Your task to perform on an android device: Show the shopping cart on bestbuy.com. Add "apple airpods" to the cart on bestbuy.com, then select checkout. Image 0: 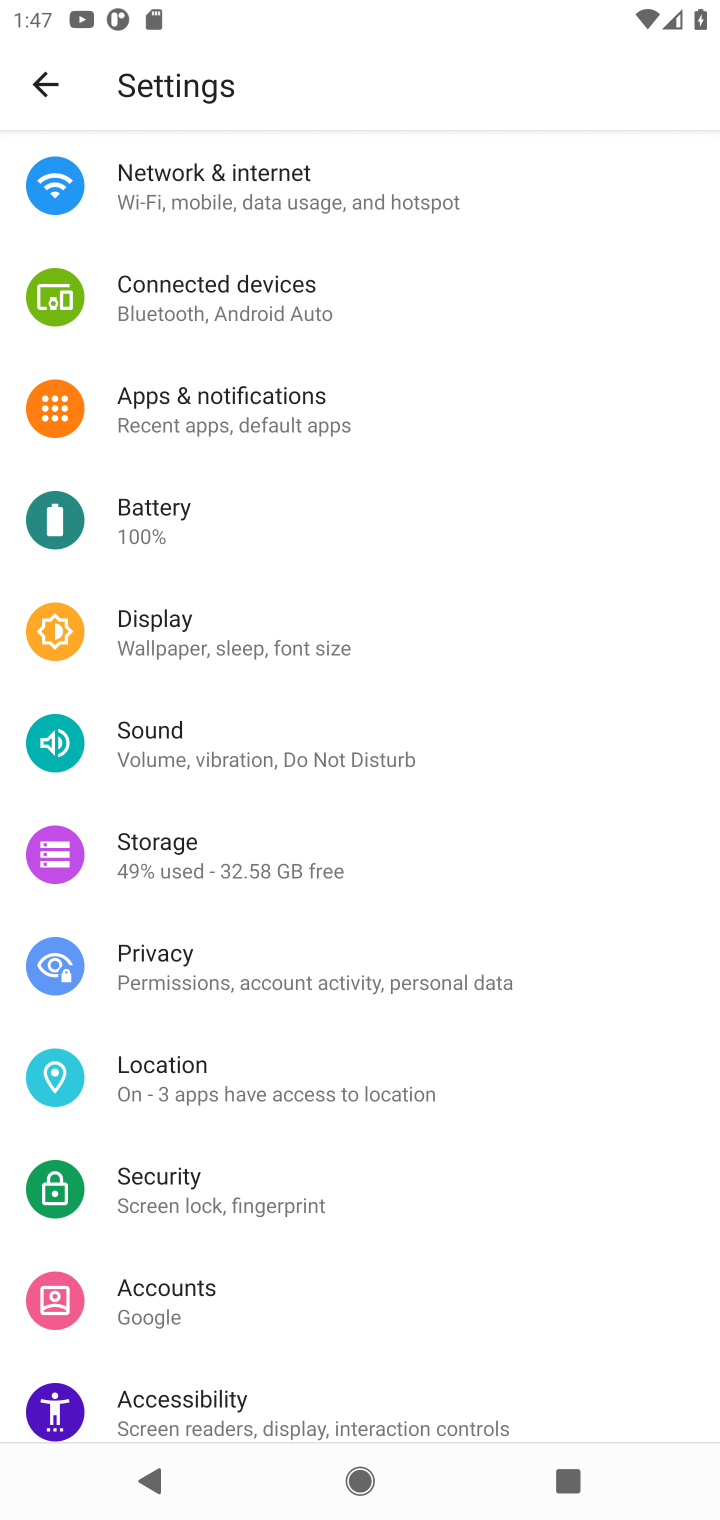
Step 0: press home button
Your task to perform on an android device: Show the shopping cart on bestbuy.com. Add "apple airpods" to the cart on bestbuy.com, then select checkout. Image 1: 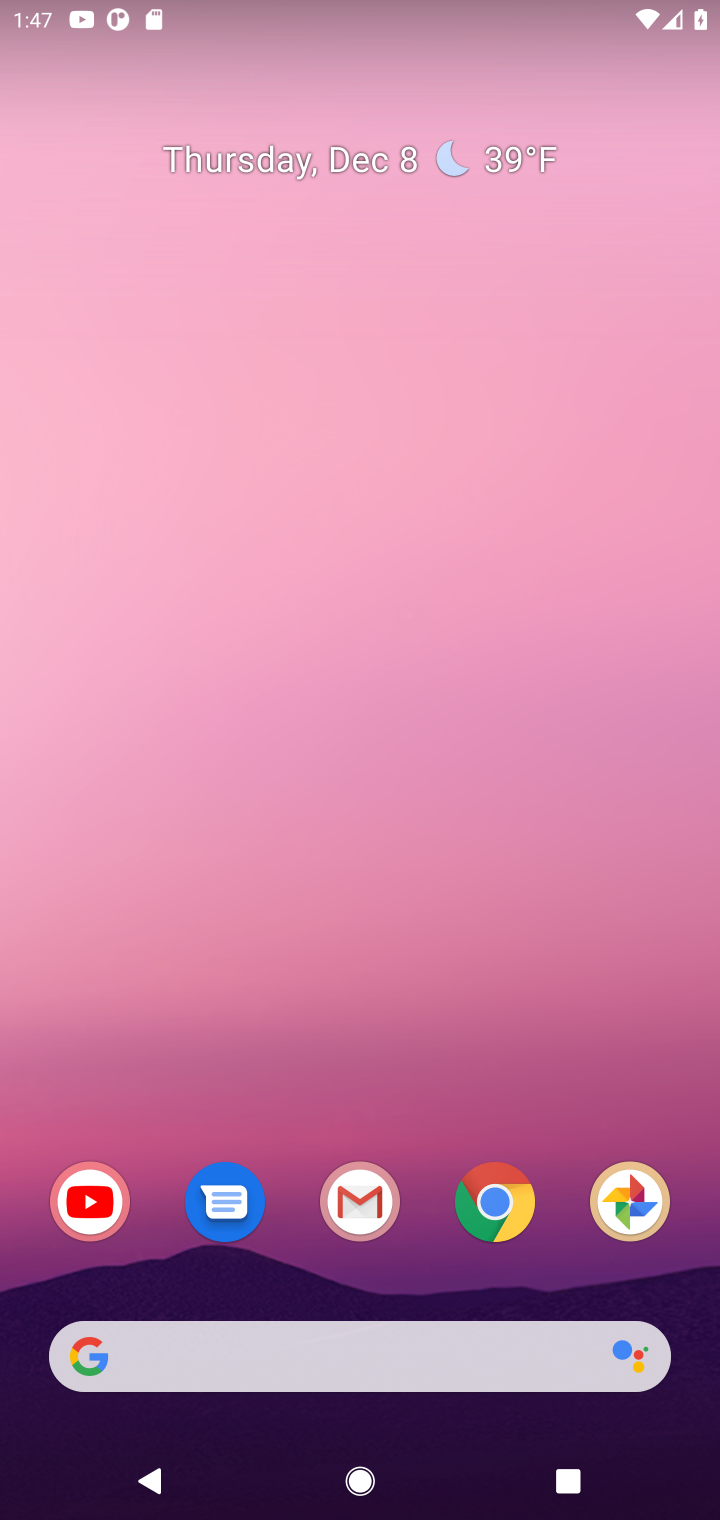
Step 1: click (491, 1207)
Your task to perform on an android device: Show the shopping cart on bestbuy.com. Add "apple airpods" to the cart on bestbuy.com, then select checkout. Image 2: 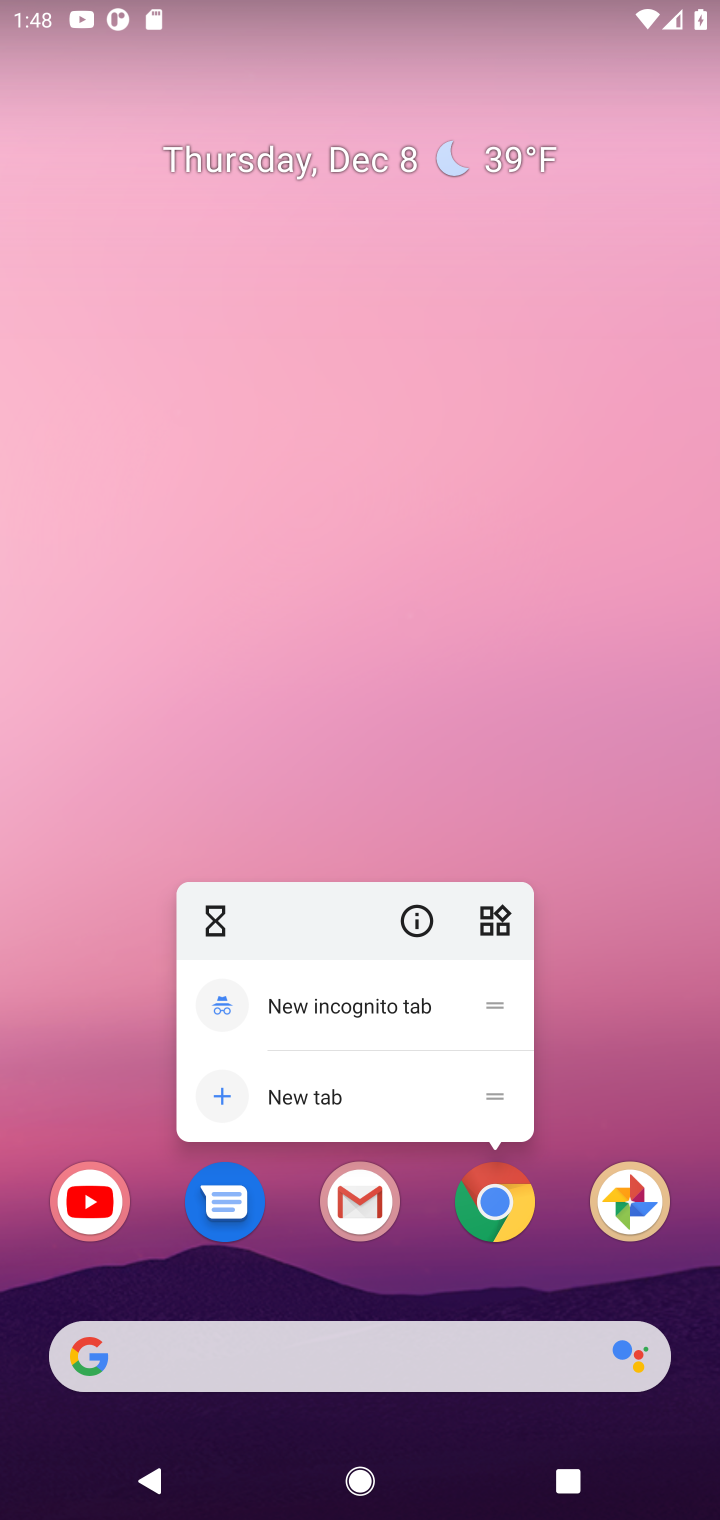
Step 2: click (492, 1209)
Your task to perform on an android device: Show the shopping cart on bestbuy.com. Add "apple airpods" to the cart on bestbuy.com, then select checkout. Image 3: 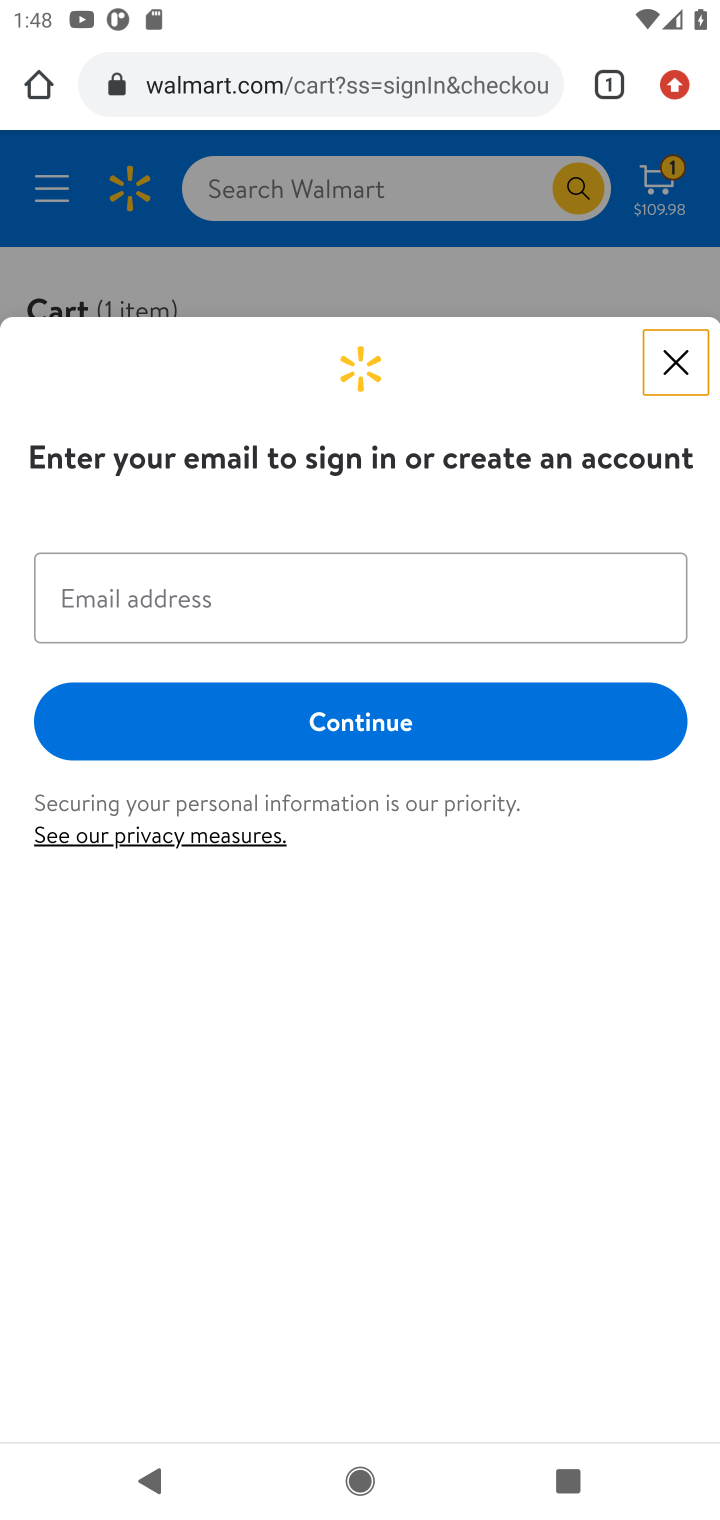
Step 3: click (690, 367)
Your task to perform on an android device: Show the shopping cart on bestbuy.com. Add "apple airpods" to the cart on bestbuy.com, then select checkout. Image 4: 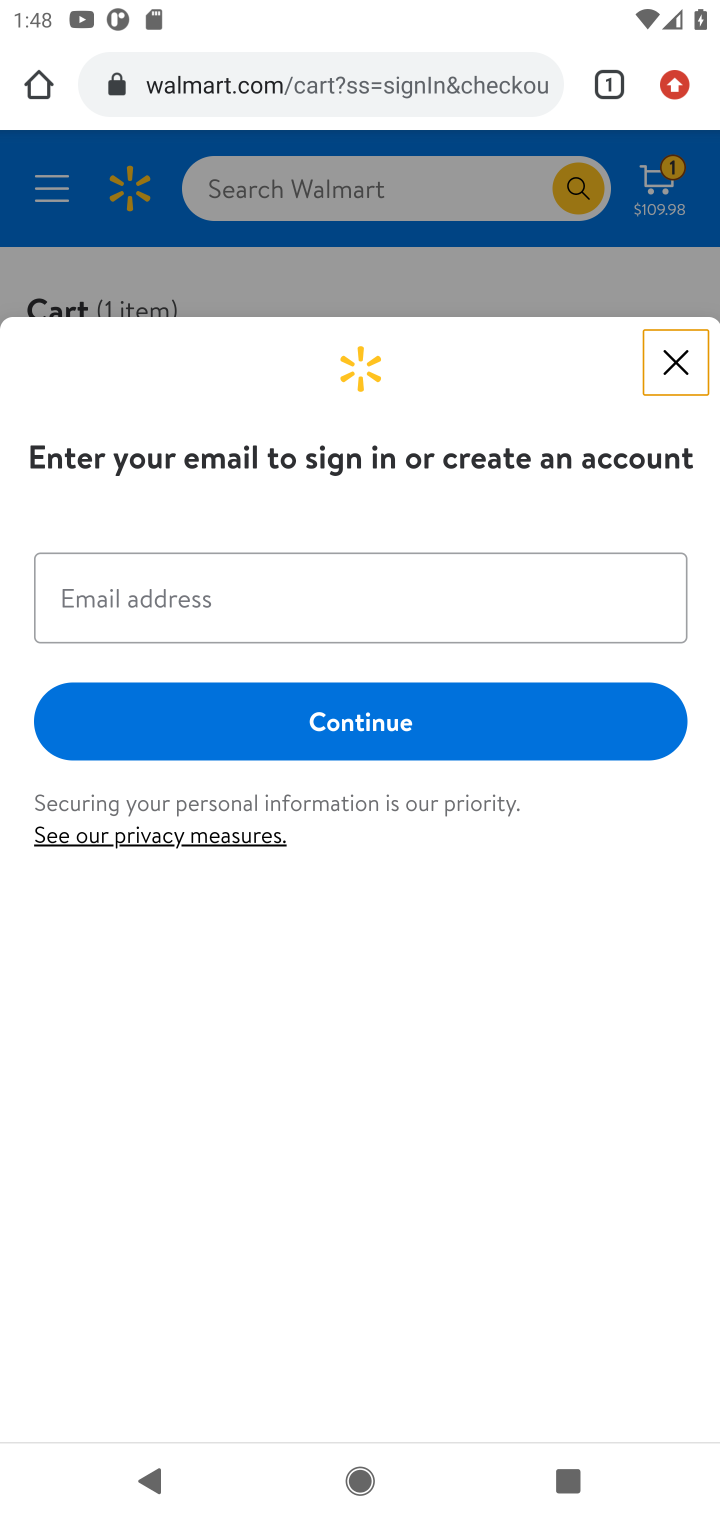
Step 4: click (389, 75)
Your task to perform on an android device: Show the shopping cart on bestbuy.com. Add "apple airpods" to the cart on bestbuy.com, then select checkout. Image 5: 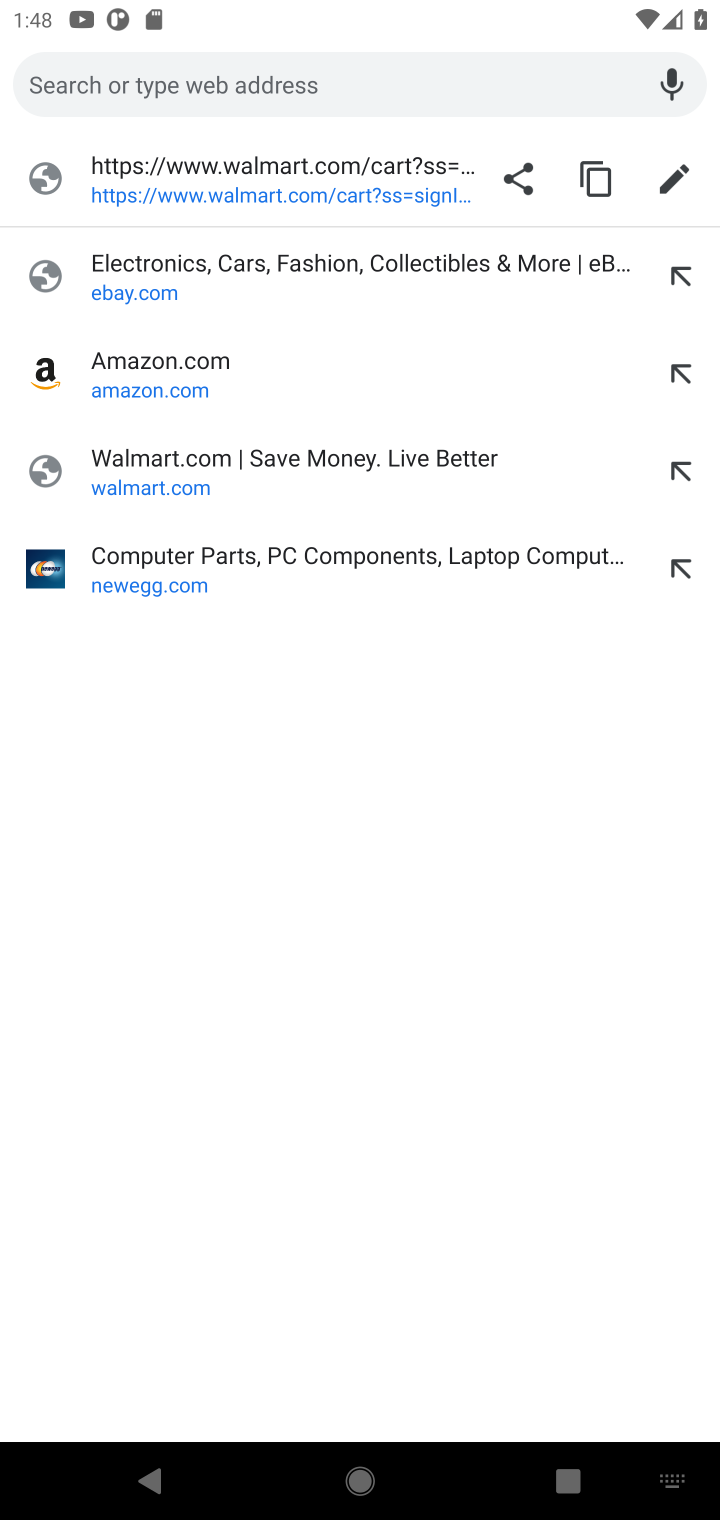
Step 5: type "bestbuy.com"
Your task to perform on an android device: Show the shopping cart on bestbuy.com. Add "apple airpods" to the cart on bestbuy.com, then select checkout. Image 6: 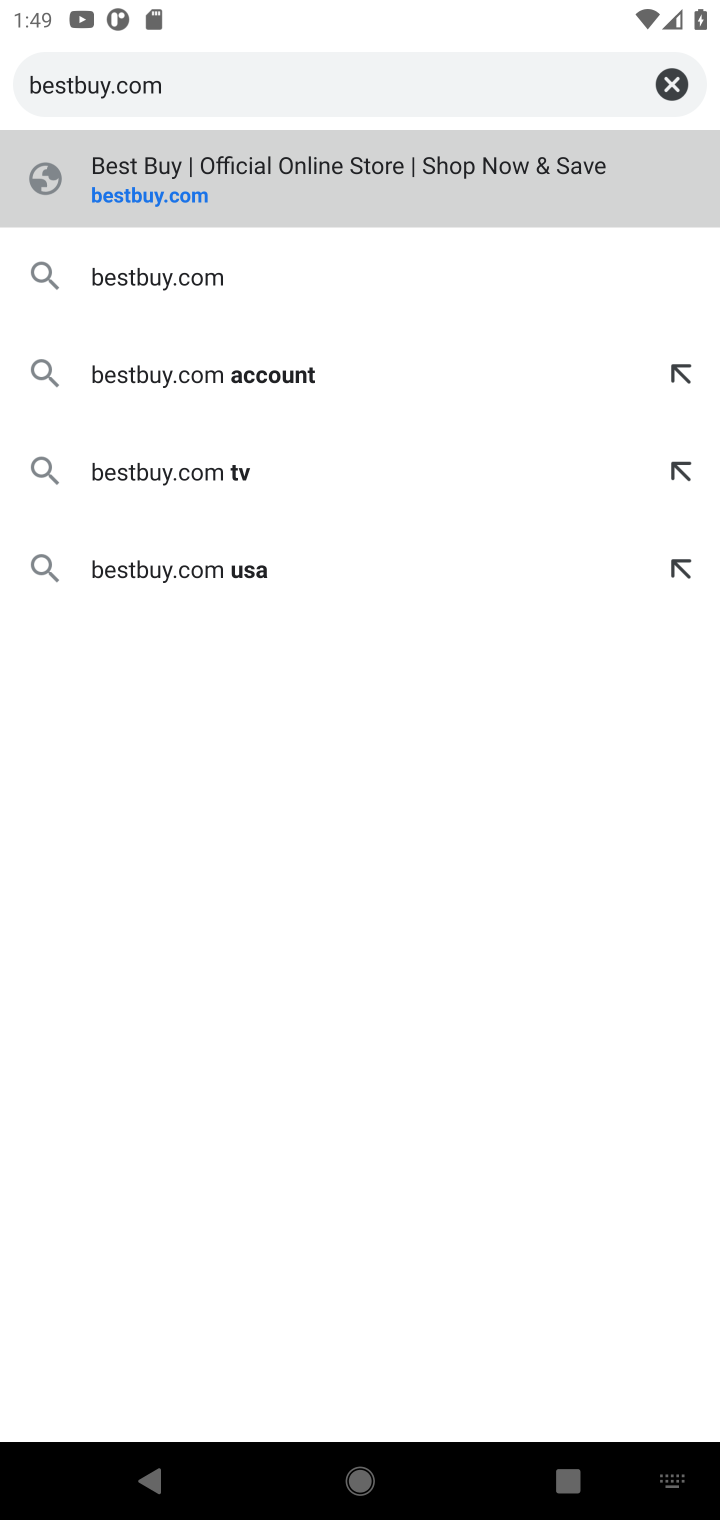
Step 6: press enter
Your task to perform on an android device: Show the shopping cart on bestbuy.com. Add "apple airpods" to the cart on bestbuy.com, then select checkout. Image 7: 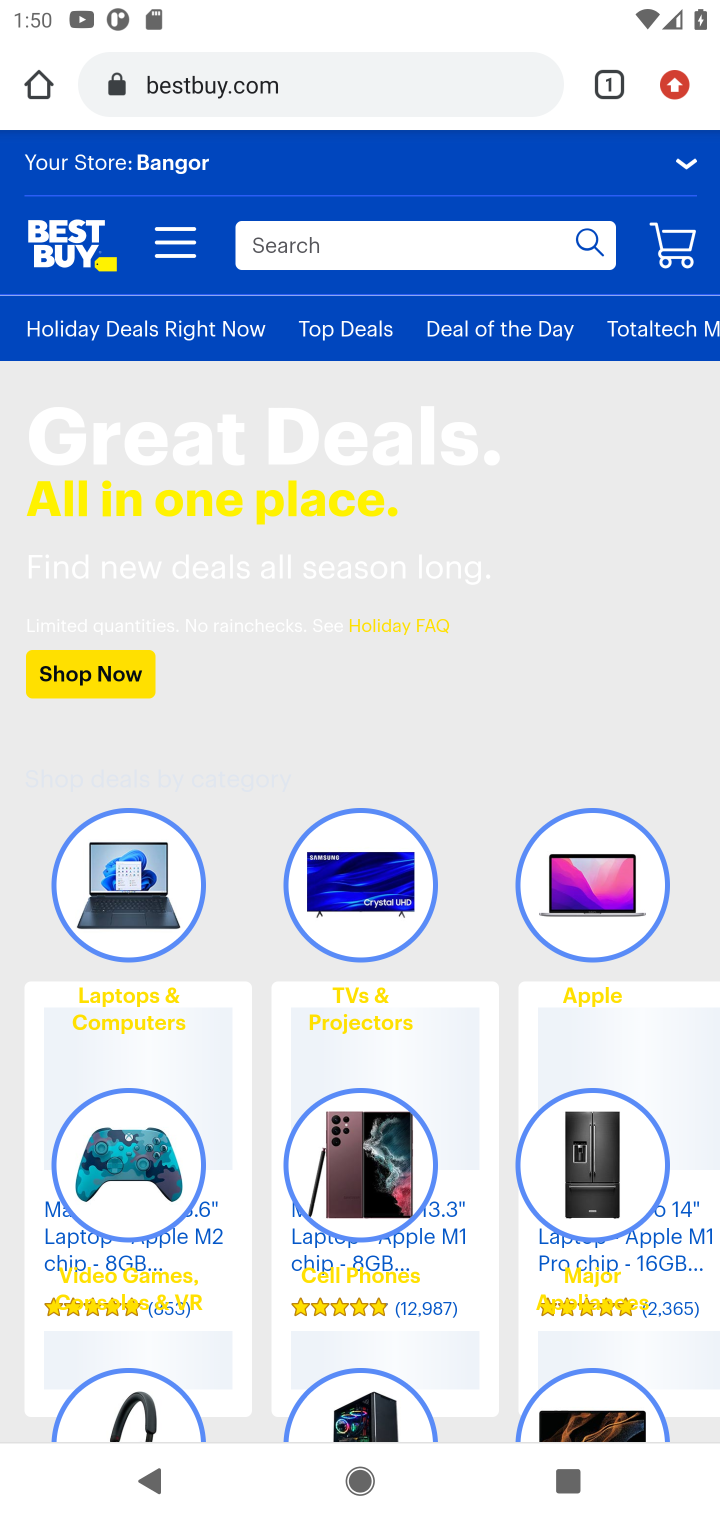
Step 7: click (680, 255)
Your task to perform on an android device: Show the shopping cart on bestbuy.com. Add "apple airpods" to the cart on bestbuy.com, then select checkout. Image 8: 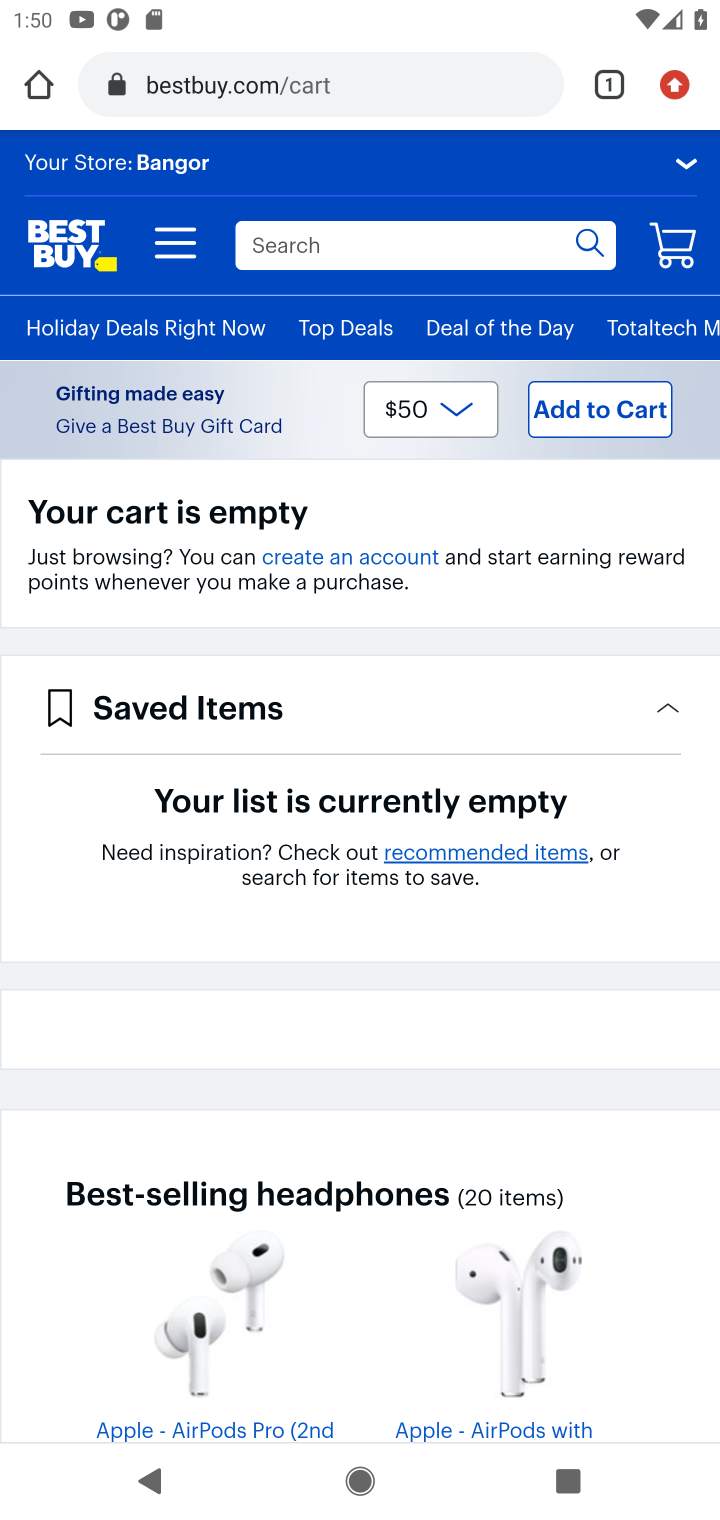
Step 8: click (446, 251)
Your task to perform on an android device: Show the shopping cart on bestbuy.com. Add "apple airpods" to the cart on bestbuy.com, then select checkout. Image 9: 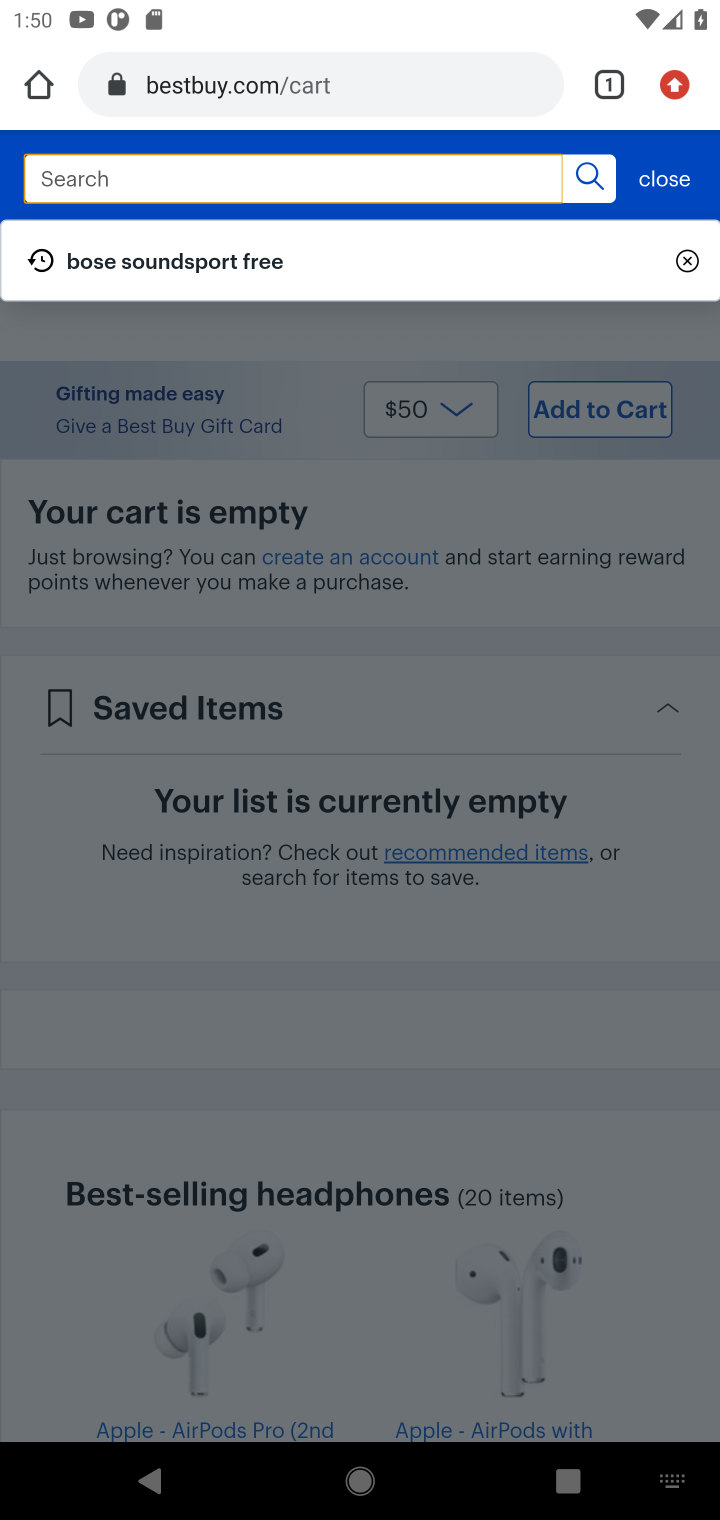
Step 9: type "apple airpods"
Your task to perform on an android device: Show the shopping cart on bestbuy.com. Add "apple airpods" to the cart on bestbuy.com, then select checkout. Image 10: 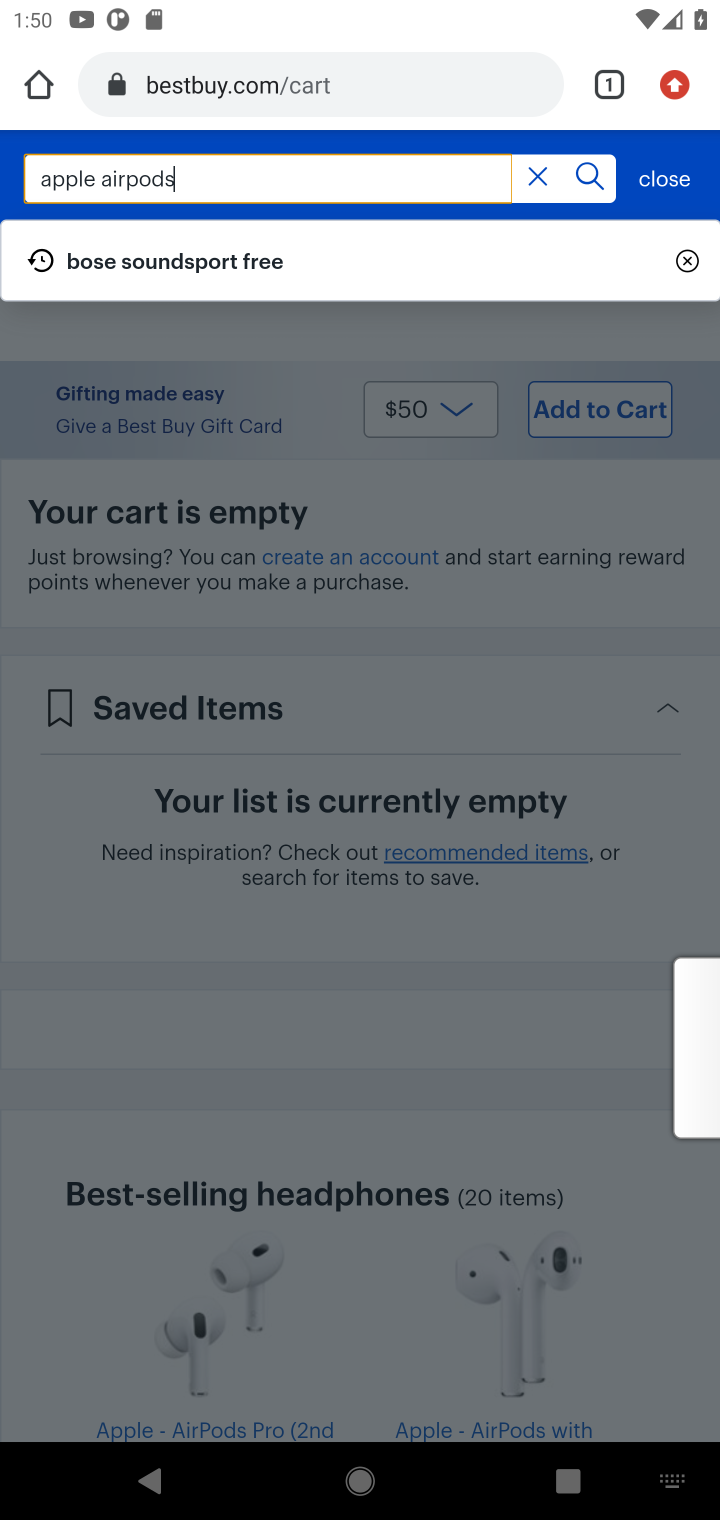
Step 10: press enter
Your task to perform on an android device: Show the shopping cart on bestbuy.com. Add "apple airpods" to the cart on bestbuy.com, then select checkout. Image 11: 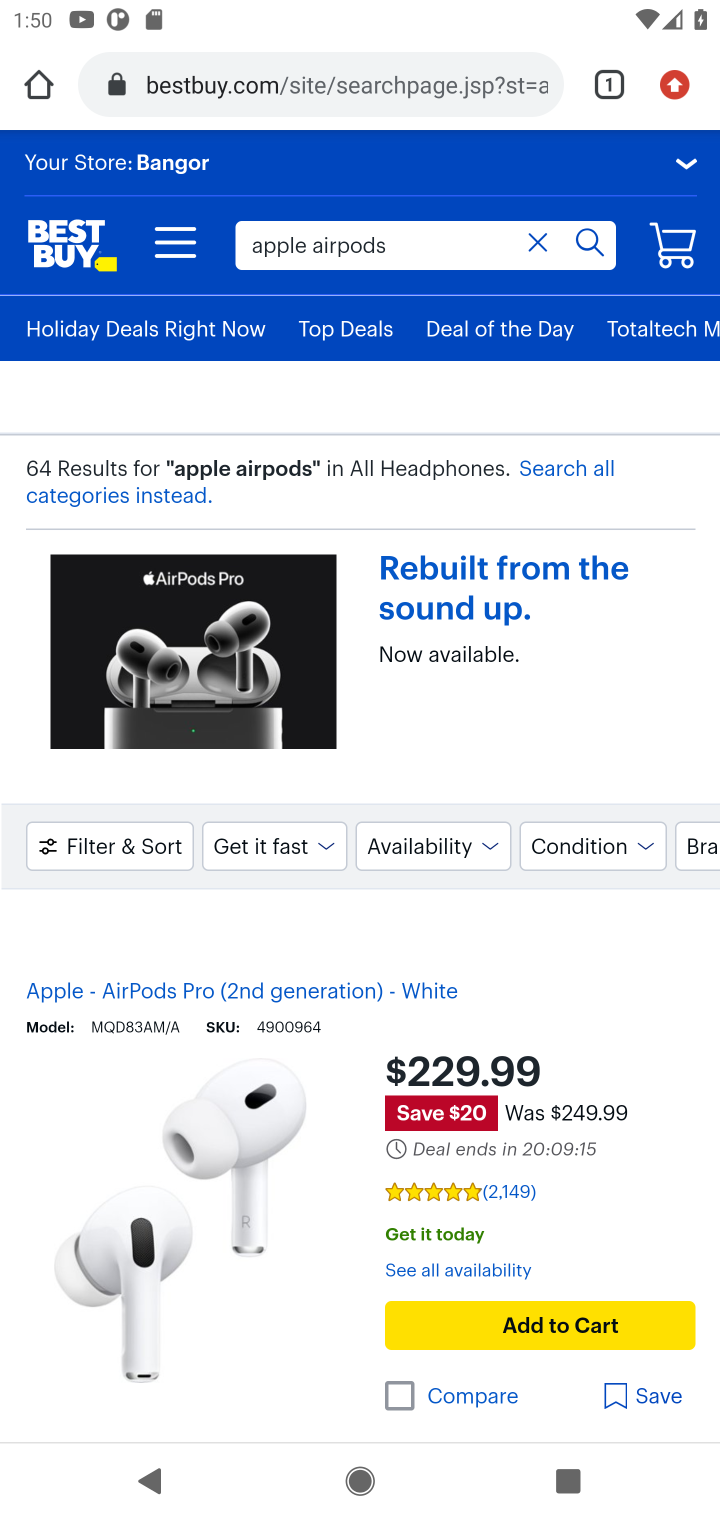
Step 11: click (171, 1131)
Your task to perform on an android device: Show the shopping cart on bestbuy.com. Add "apple airpods" to the cart on bestbuy.com, then select checkout. Image 12: 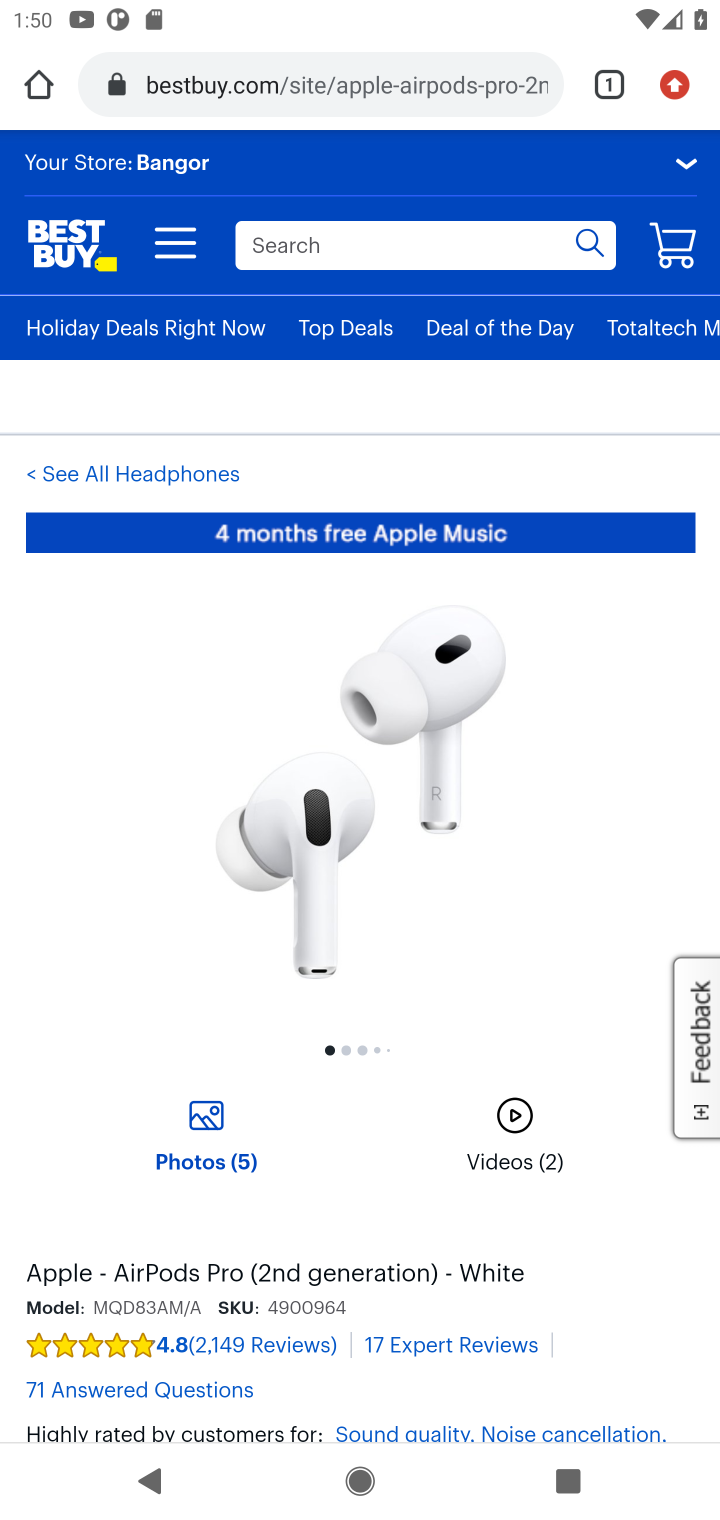
Step 12: drag from (354, 1080) to (374, 599)
Your task to perform on an android device: Show the shopping cart on bestbuy.com. Add "apple airpods" to the cart on bestbuy.com, then select checkout. Image 13: 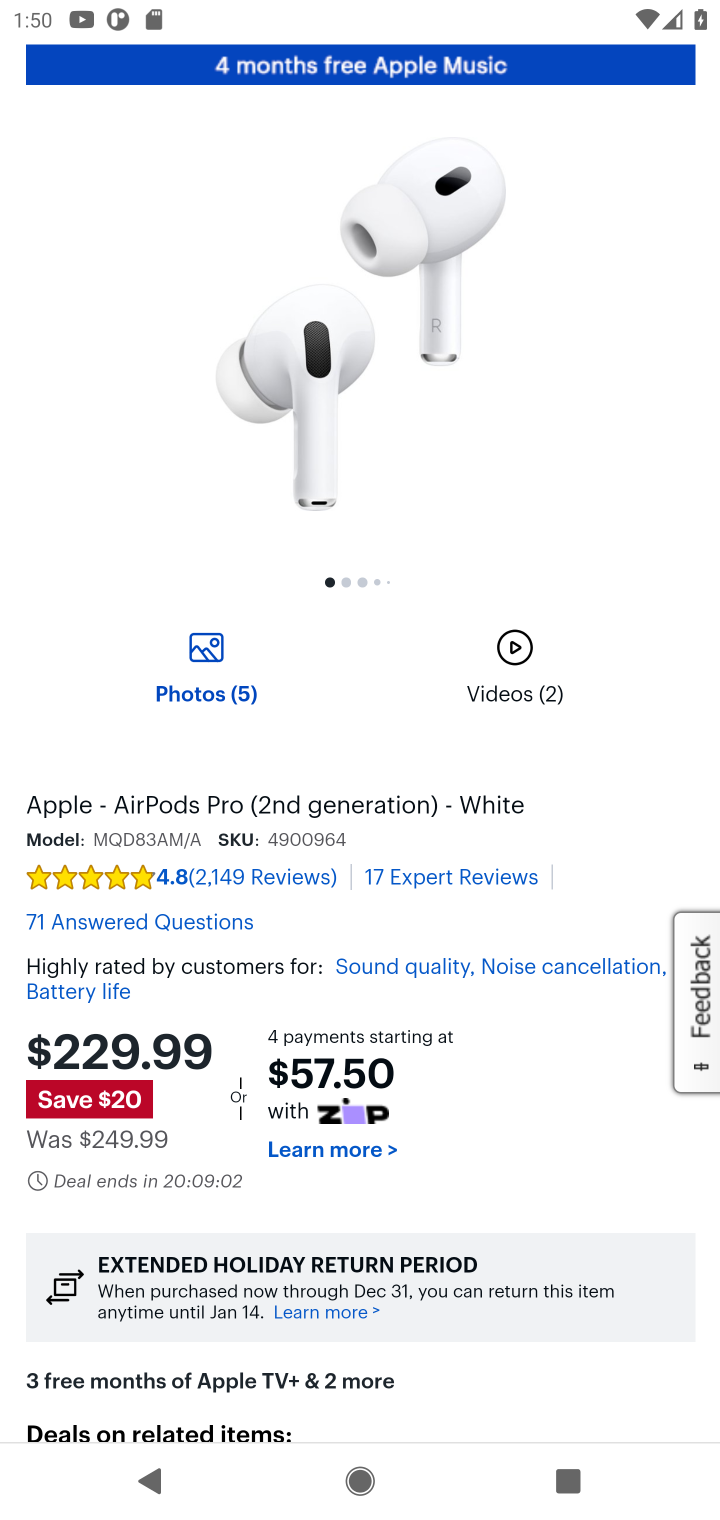
Step 13: drag from (530, 1163) to (514, 578)
Your task to perform on an android device: Show the shopping cart on bestbuy.com. Add "apple airpods" to the cart on bestbuy.com, then select checkout. Image 14: 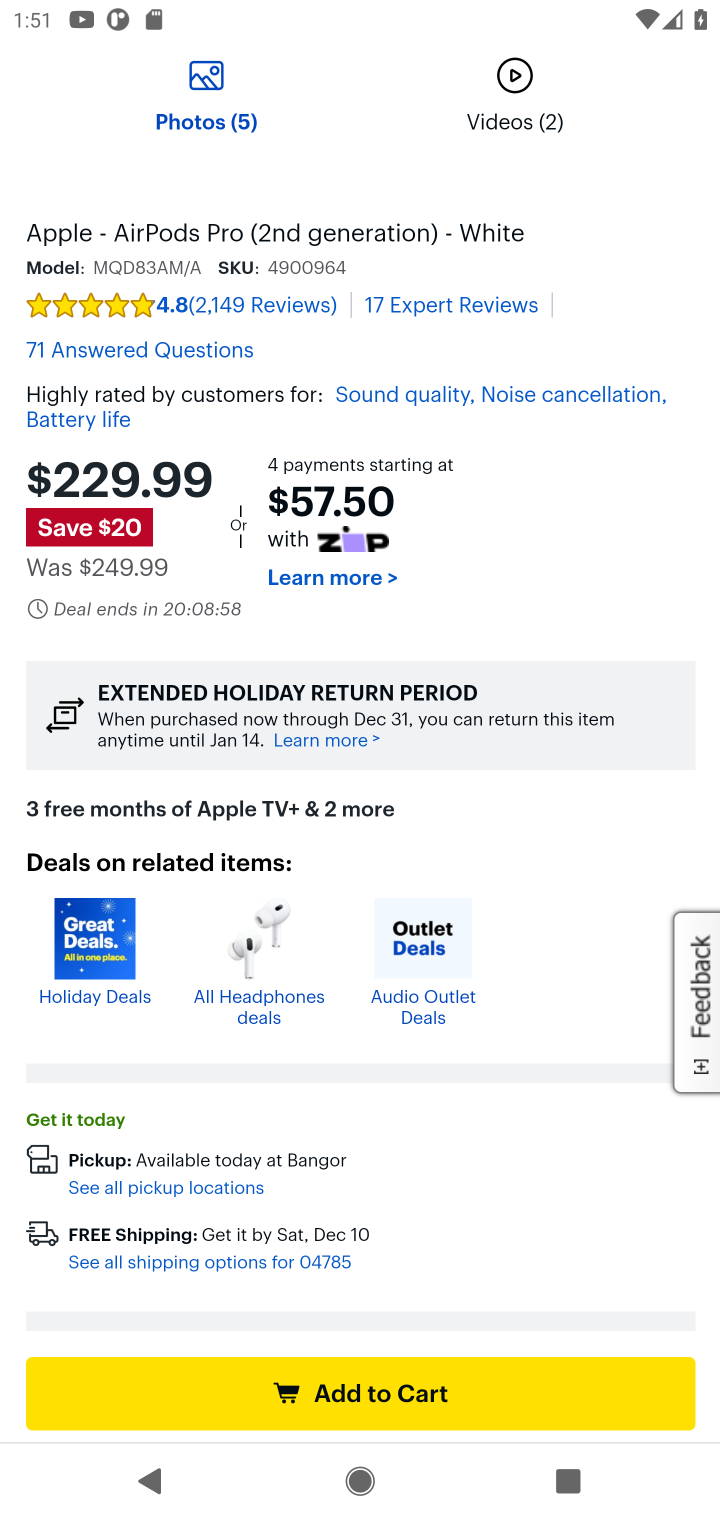
Step 14: click (384, 1380)
Your task to perform on an android device: Show the shopping cart on bestbuy.com. Add "apple airpods" to the cart on bestbuy.com, then select checkout. Image 15: 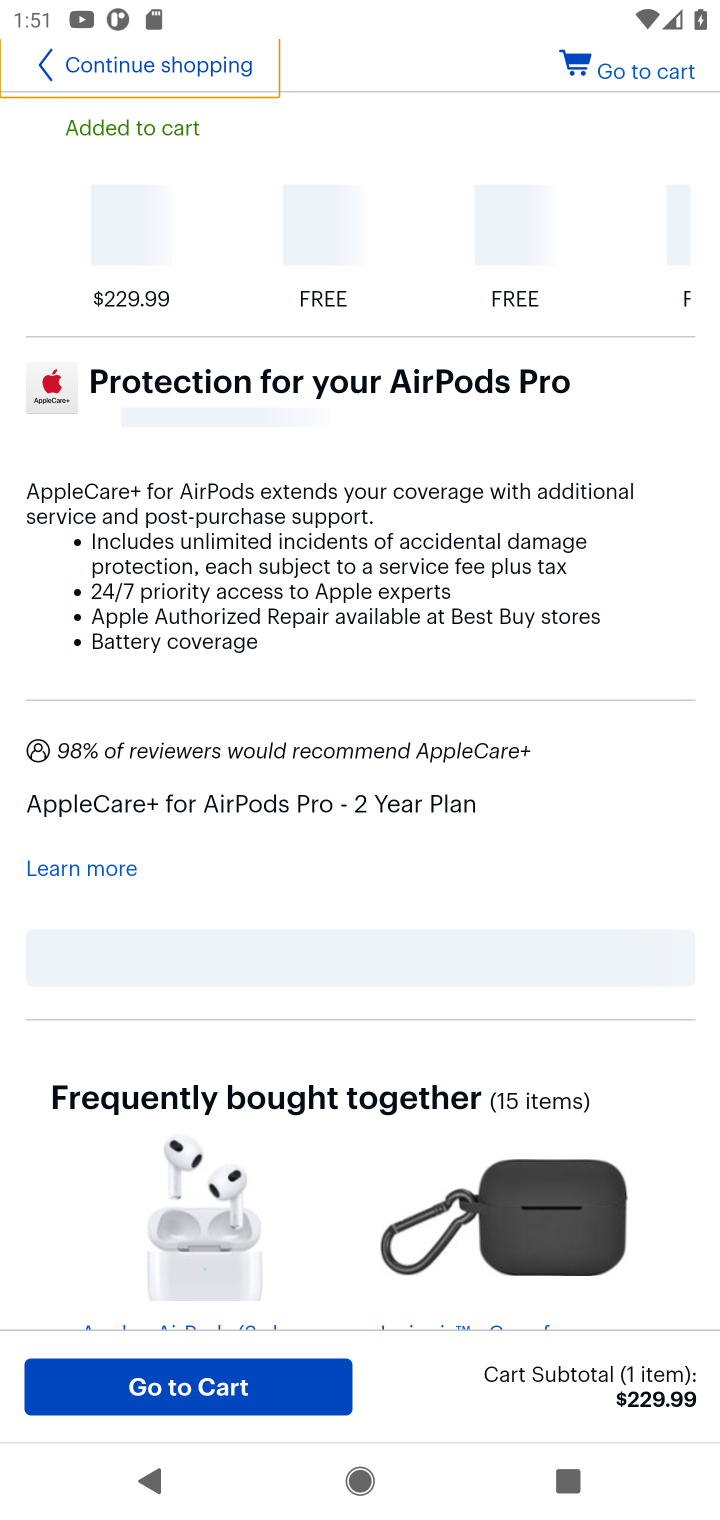
Step 15: click (214, 1390)
Your task to perform on an android device: Show the shopping cart on bestbuy.com. Add "apple airpods" to the cart on bestbuy.com, then select checkout. Image 16: 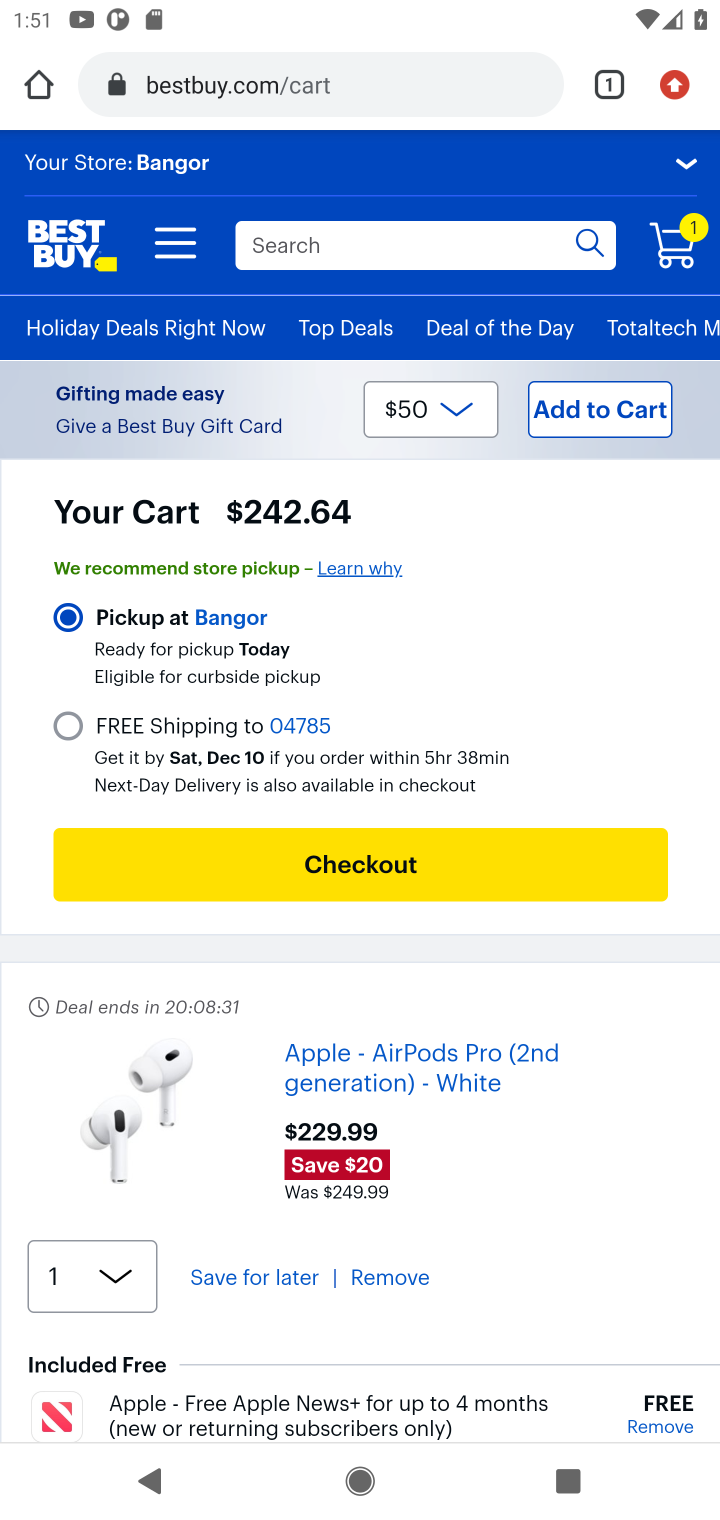
Step 16: click (366, 867)
Your task to perform on an android device: Show the shopping cart on bestbuy.com. Add "apple airpods" to the cart on bestbuy.com, then select checkout. Image 17: 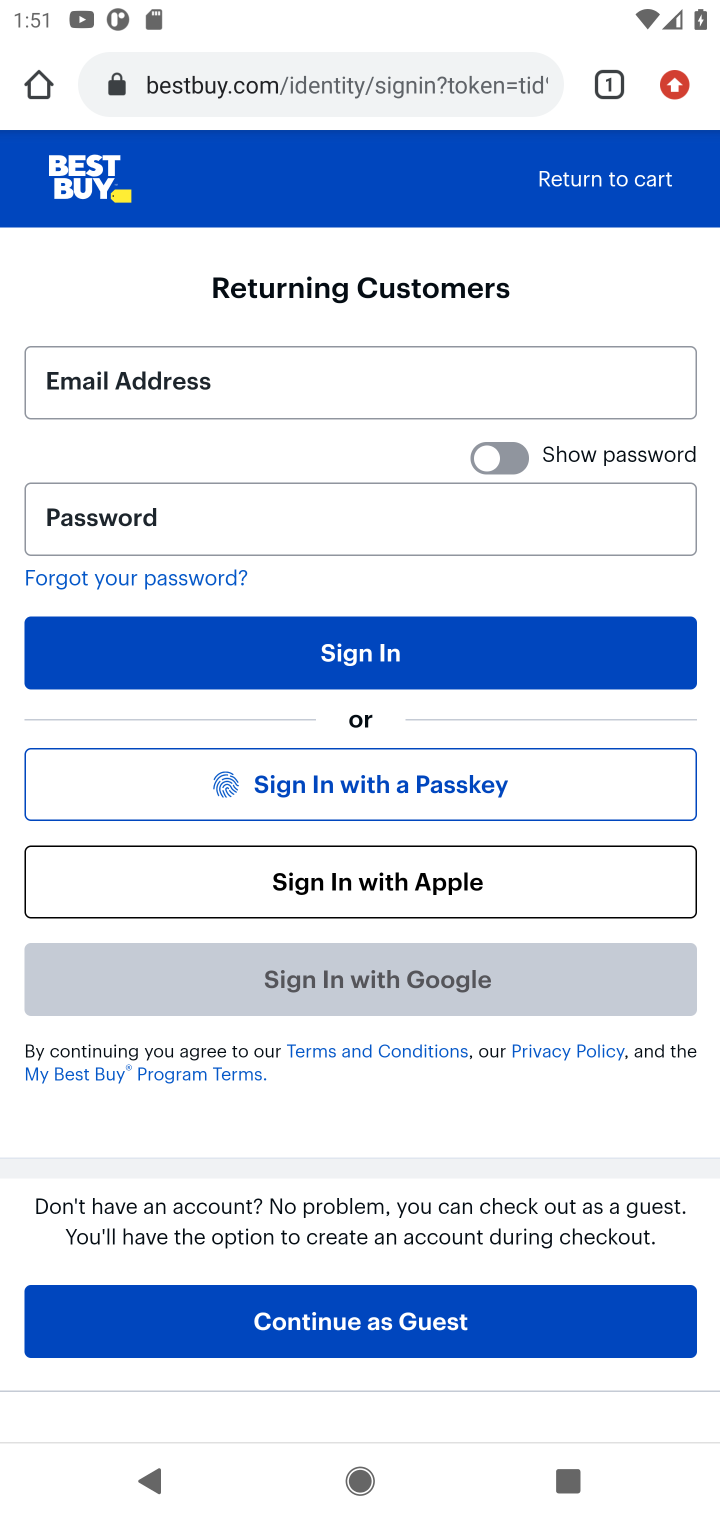
Step 17: task complete